Your task to perform on an android device: change the clock style Image 0: 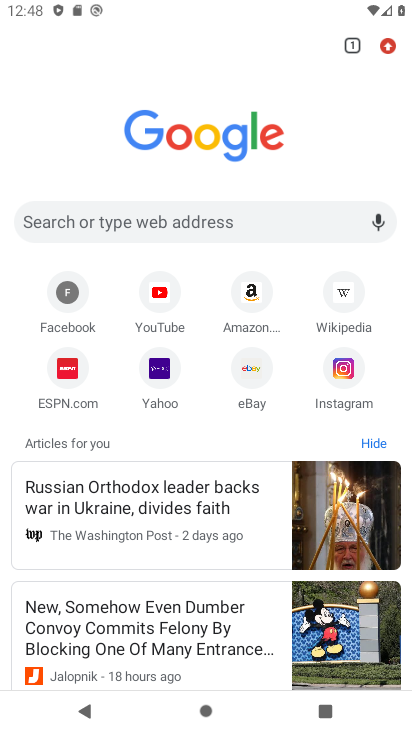
Step 0: press home button
Your task to perform on an android device: change the clock style Image 1: 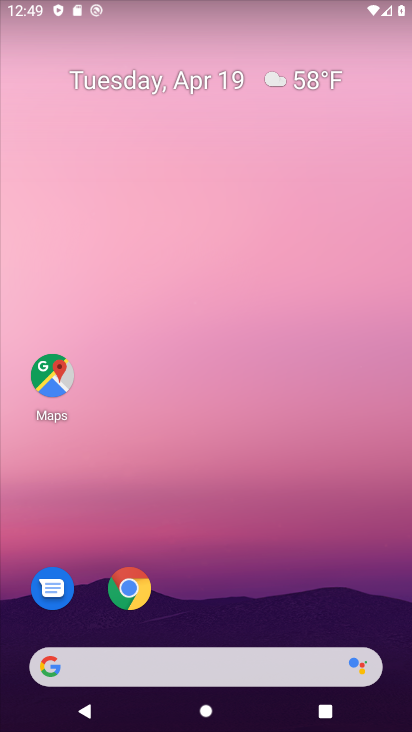
Step 1: drag from (213, 613) to (224, 232)
Your task to perform on an android device: change the clock style Image 2: 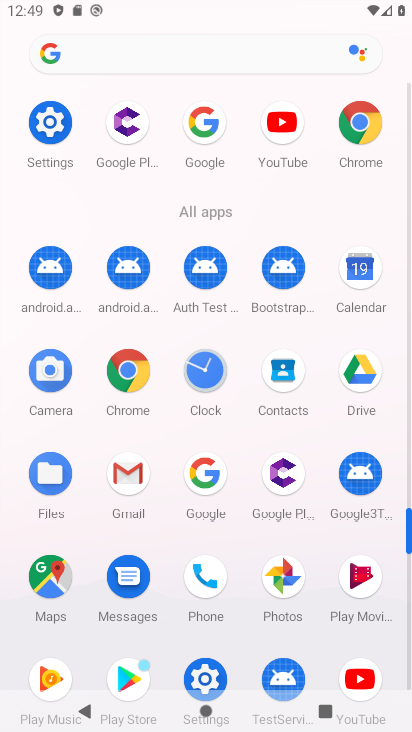
Step 2: click (205, 377)
Your task to perform on an android device: change the clock style Image 3: 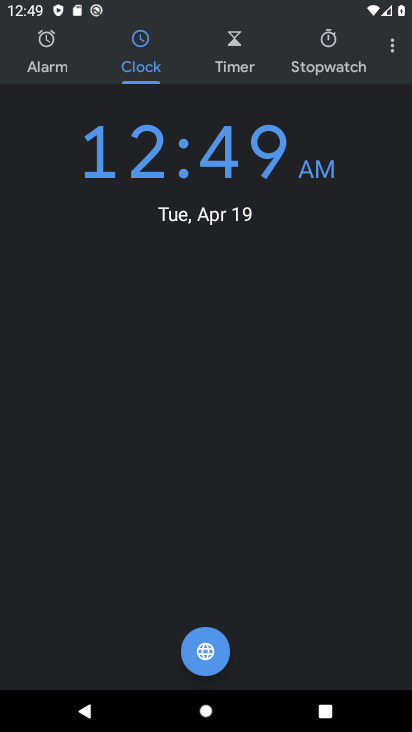
Step 3: click (388, 38)
Your task to perform on an android device: change the clock style Image 4: 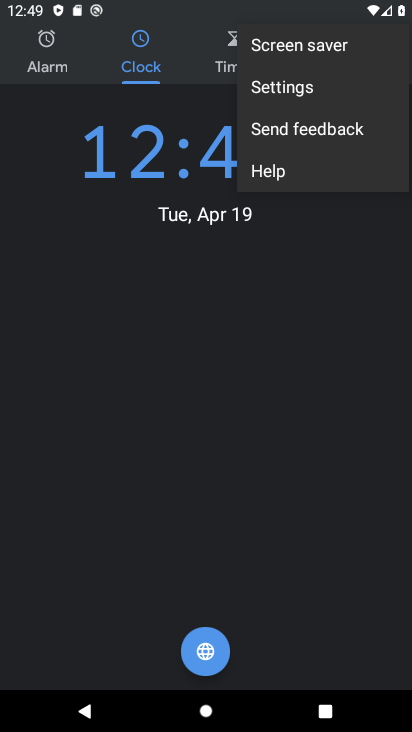
Step 4: click (306, 90)
Your task to perform on an android device: change the clock style Image 5: 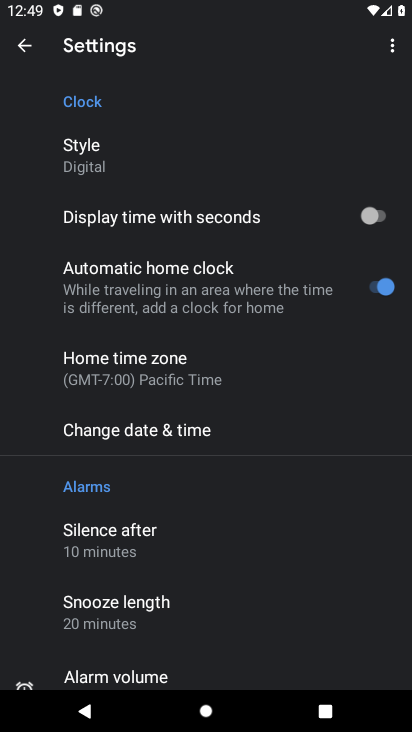
Step 5: click (137, 148)
Your task to perform on an android device: change the clock style Image 6: 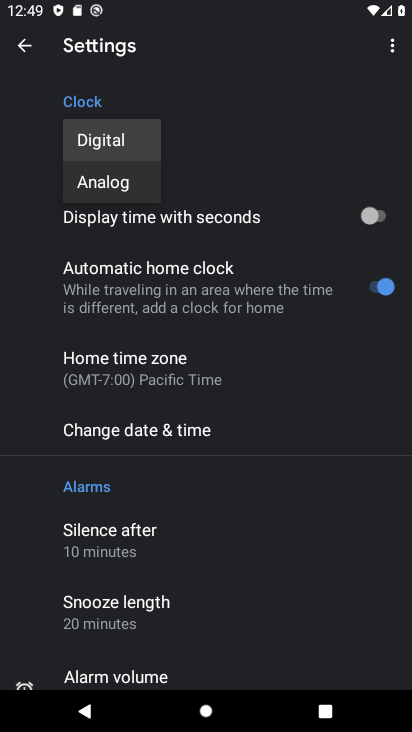
Step 6: click (131, 177)
Your task to perform on an android device: change the clock style Image 7: 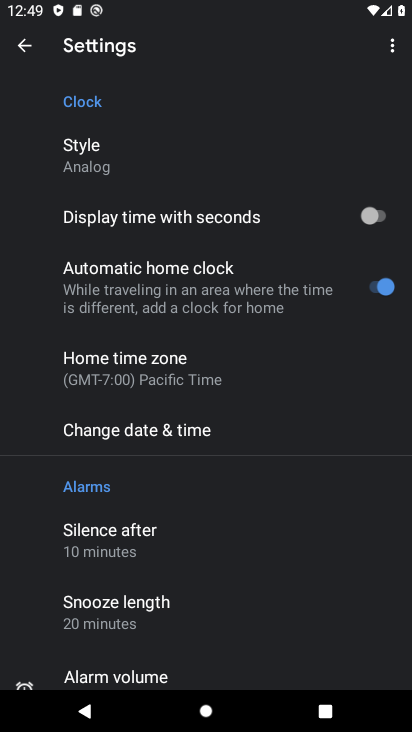
Step 7: task complete